Your task to perform on an android device: toggle show notifications on the lock screen Image 0: 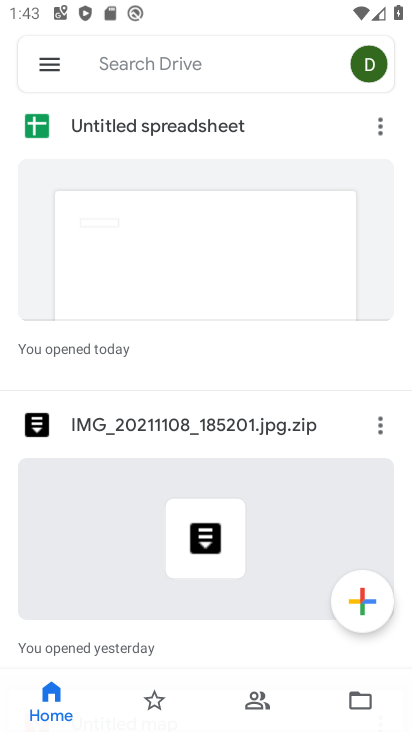
Step 0: press home button
Your task to perform on an android device: toggle show notifications on the lock screen Image 1: 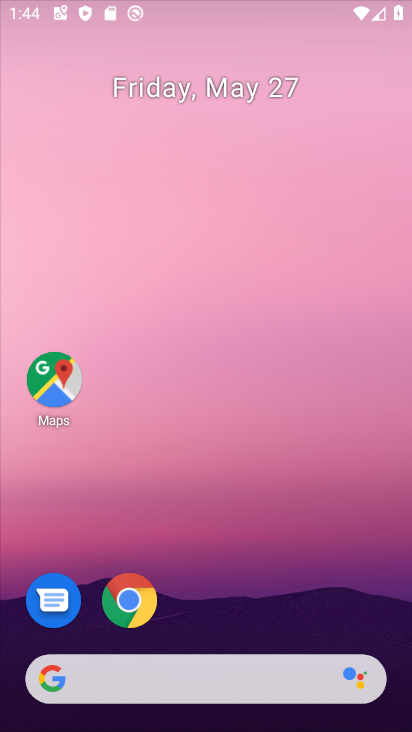
Step 1: drag from (234, 727) to (239, 157)
Your task to perform on an android device: toggle show notifications on the lock screen Image 2: 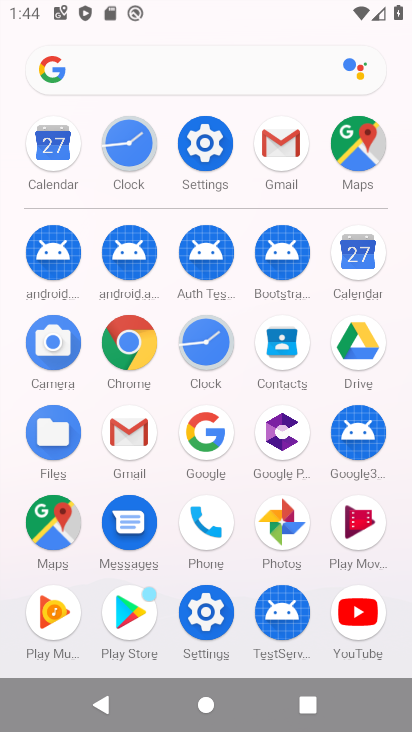
Step 2: click (217, 150)
Your task to perform on an android device: toggle show notifications on the lock screen Image 3: 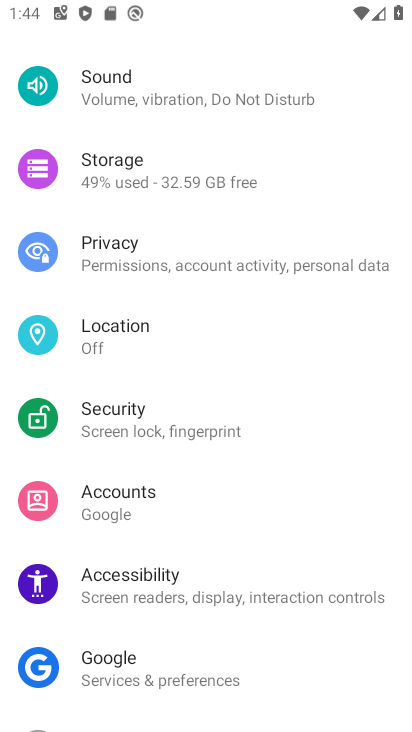
Step 3: drag from (172, 112) to (172, 496)
Your task to perform on an android device: toggle show notifications on the lock screen Image 4: 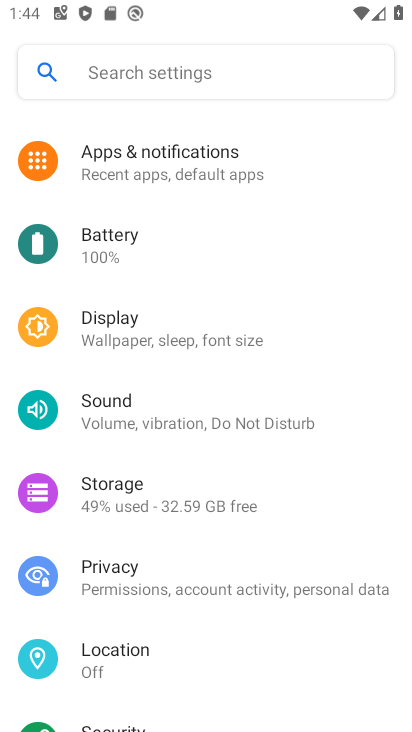
Step 4: click (136, 173)
Your task to perform on an android device: toggle show notifications on the lock screen Image 5: 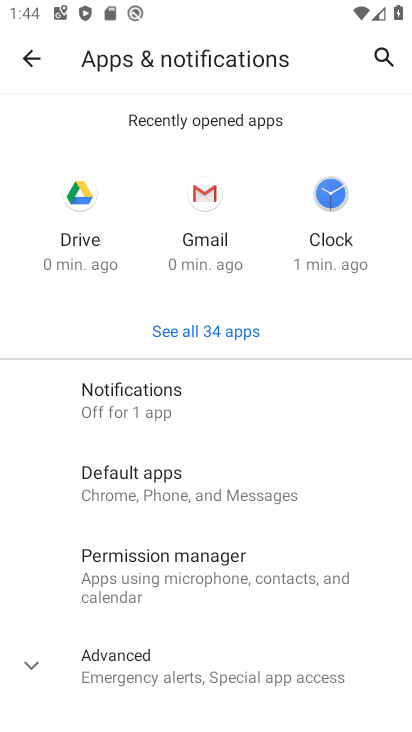
Step 5: click (143, 402)
Your task to perform on an android device: toggle show notifications on the lock screen Image 6: 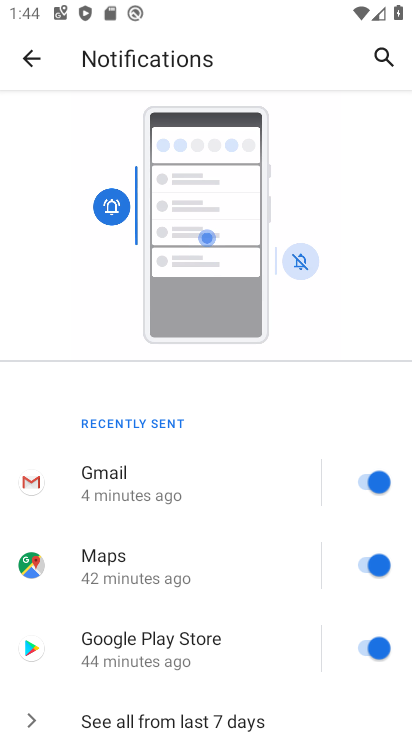
Step 6: drag from (187, 687) to (183, 235)
Your task to perform on an android device: toggle show notifications on the lock screen Image 7: 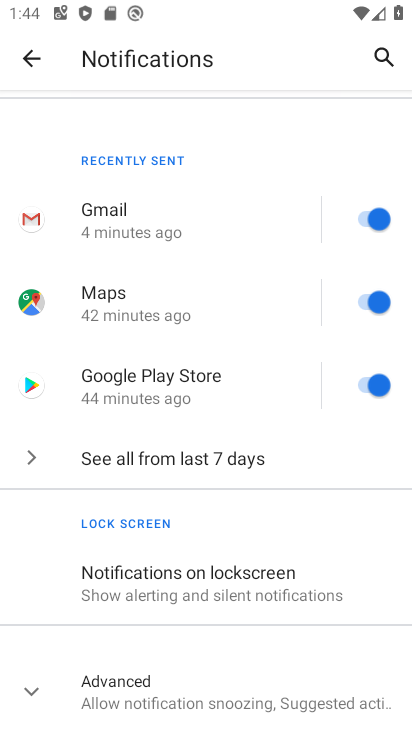
Step 7: click (175, 583)
Your task to perform on an android device: toggle show notifications on the lock screen Image 8: 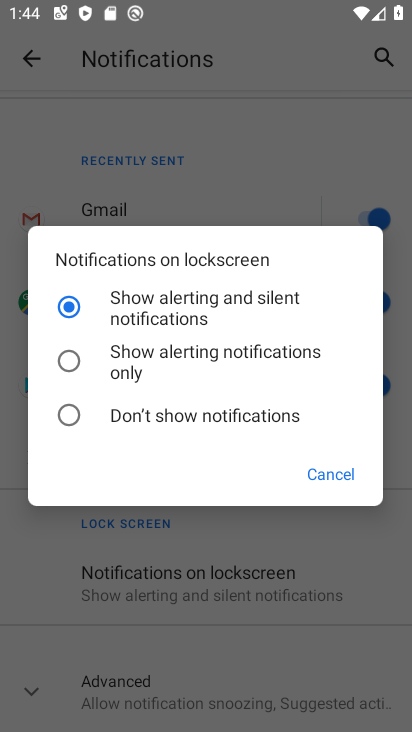
Step 8: click (67, 360)
Your task to perform on an android device: toggle show notifications on the lock screen Image 9: 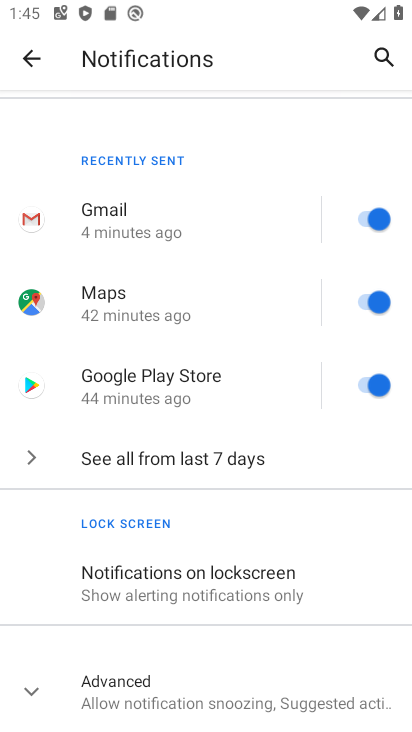
Step 9: task complete